Your task to perform on an android device: open sync settings in chrome Image 0: 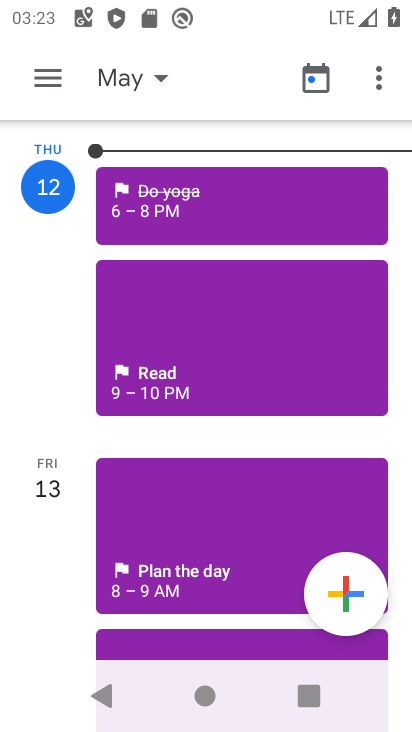
Step 0: press home button
Your task to perform on an android device: open sync settings in chrome Image 1: 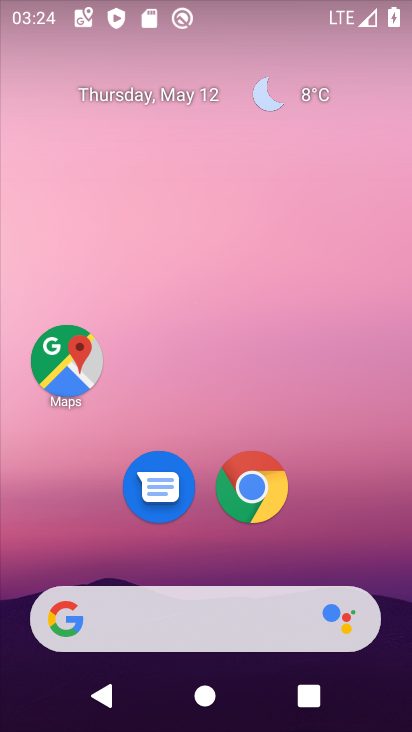
Step 1: drag from (331, 513) to (288, 100)
Your task to perform on an android device: open sync settings in chrome Image 2: 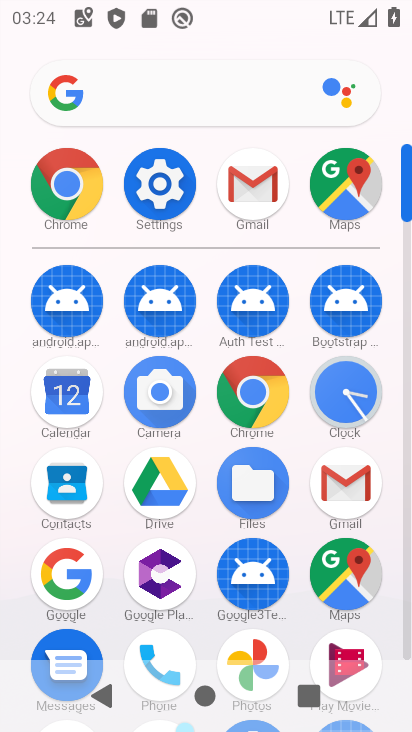
Step 2: click (54, 184)
Your task to perform on an android device: open sync settings in chrome Image 3: 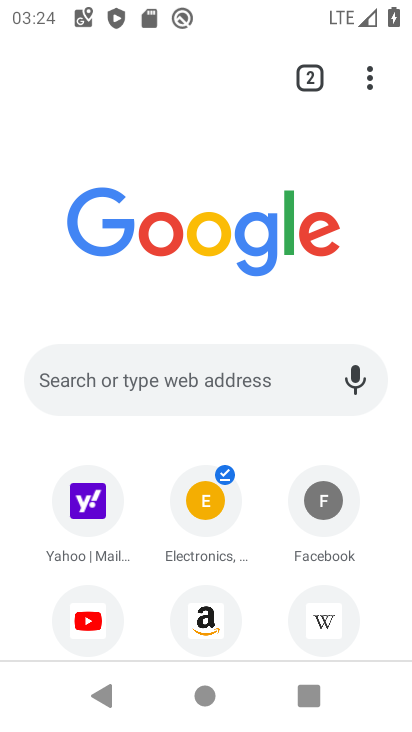
Step 3: drag from (362, 76) to (215, 527)
Your task to perform on an android device: open sync settings in chrome Image 4: 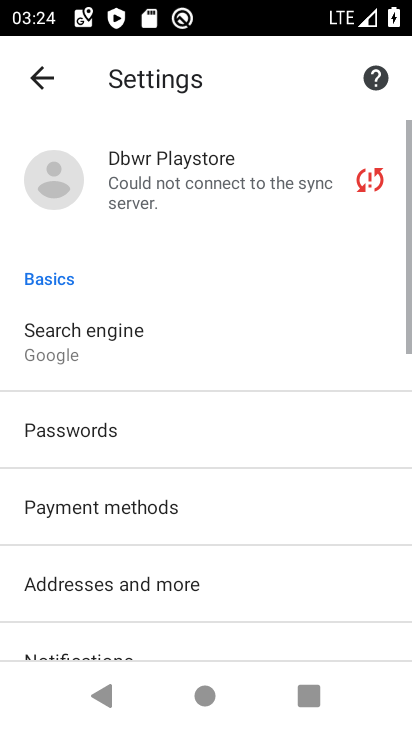
Step 4: click (186, 160)
Your task to perform on an android device: open sync settings in chrome Image 5: 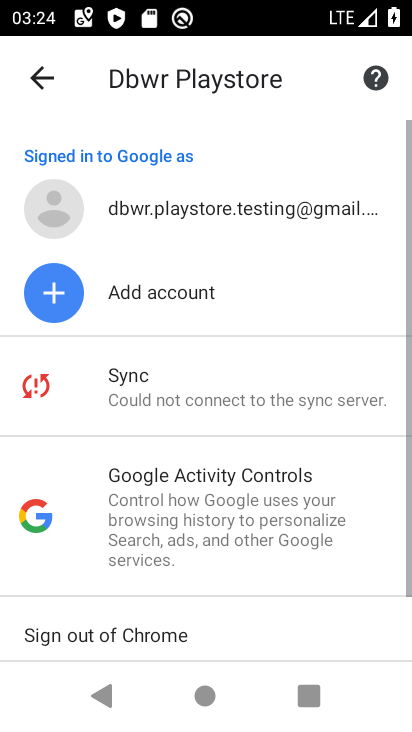
Step 5: click (202, 393)
Your task to perform on an android device: open sync settings in chrome Image 6: 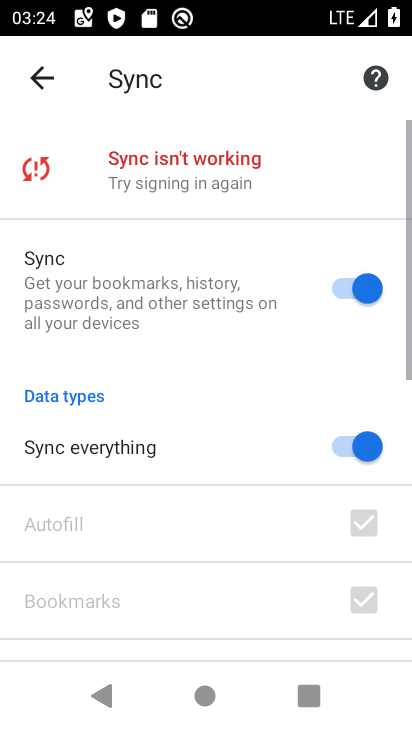
Step 6: task complete